Your task to perform on an android device: Open Google Chrome Image 0: 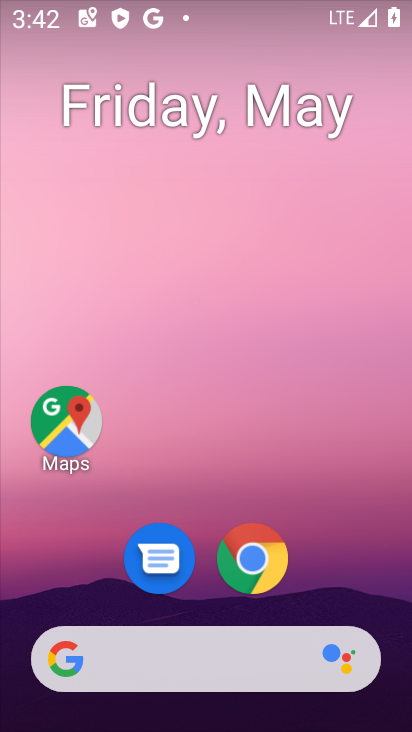
Step 0: press home button
Your task to perform on an android device: Open Google Chrome Image 1: 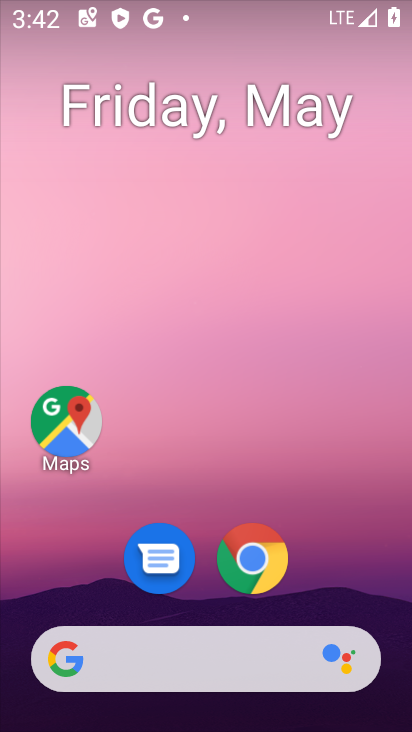
Step 1: click (259, 568)
Your task to perform on an android device: Open Google Chrome Image 2: 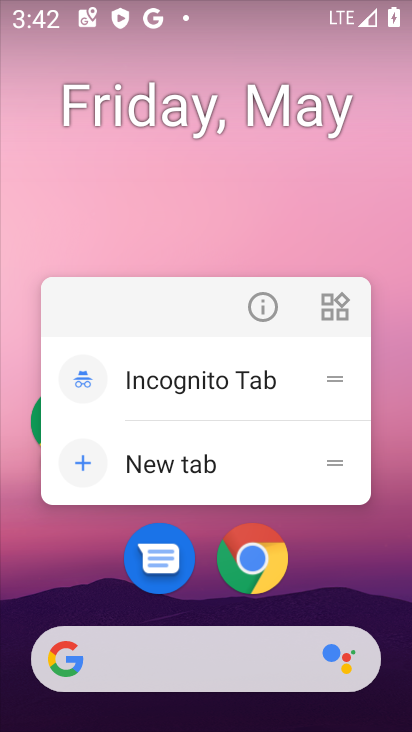
Step 2: click (253, 571)
Your task to perform on an android device: Open Google Chrome Image 3: 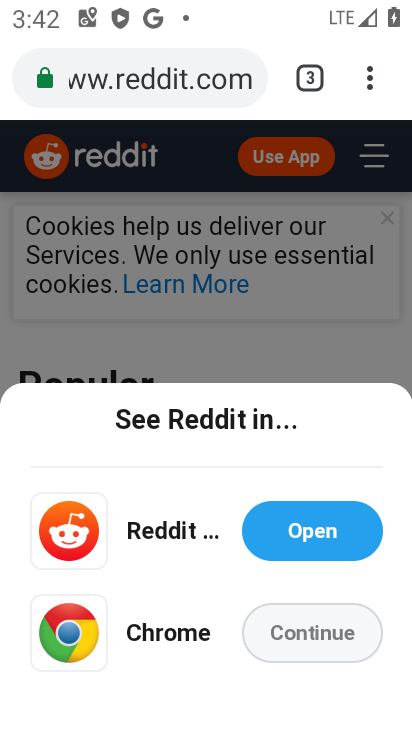
Step 3: task complete